Your task to perform on an android device: Search for bose soundlink mini on bestbuy, select the first entry, add it to the cart, then select checkout. Image 0: 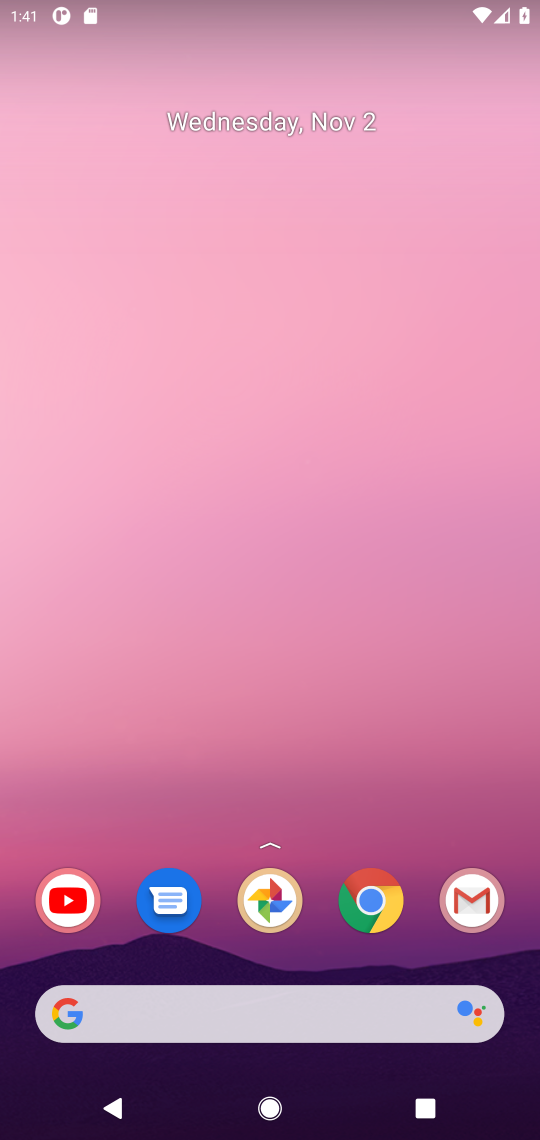
Step 0: click (362, 898)
Your task to perform on an android device: Search for bose soundlink mini on bestbuy, select the first entry, add it to the cart, then select checkout. Image 1: 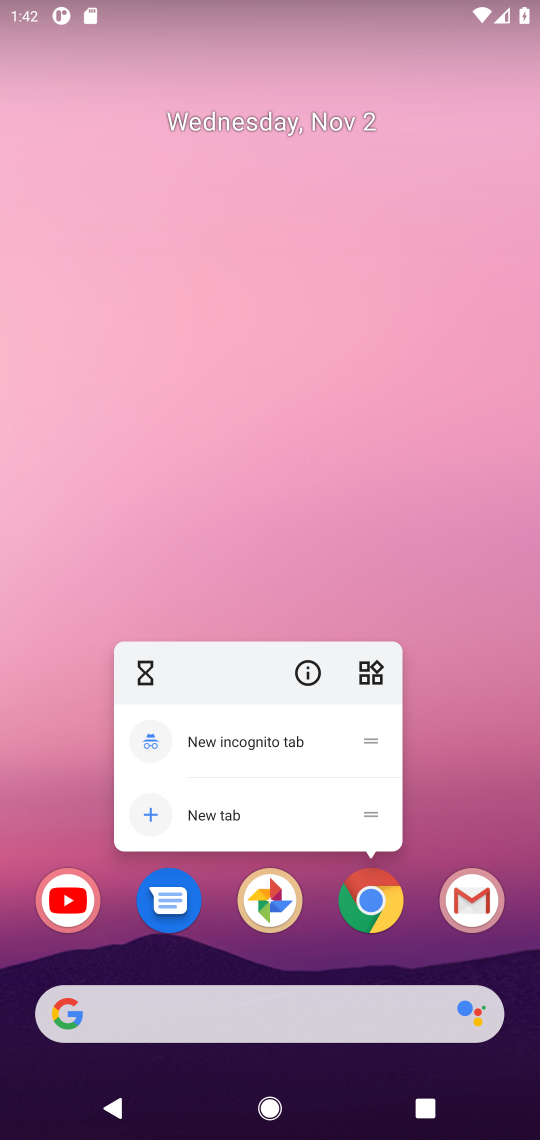
Step 1: click (361, 891)
Your task to perform on an android device: Search for bose soundlink mini on bestbuy, select the first entry, add it to the cart, then select checkout. Image 2: 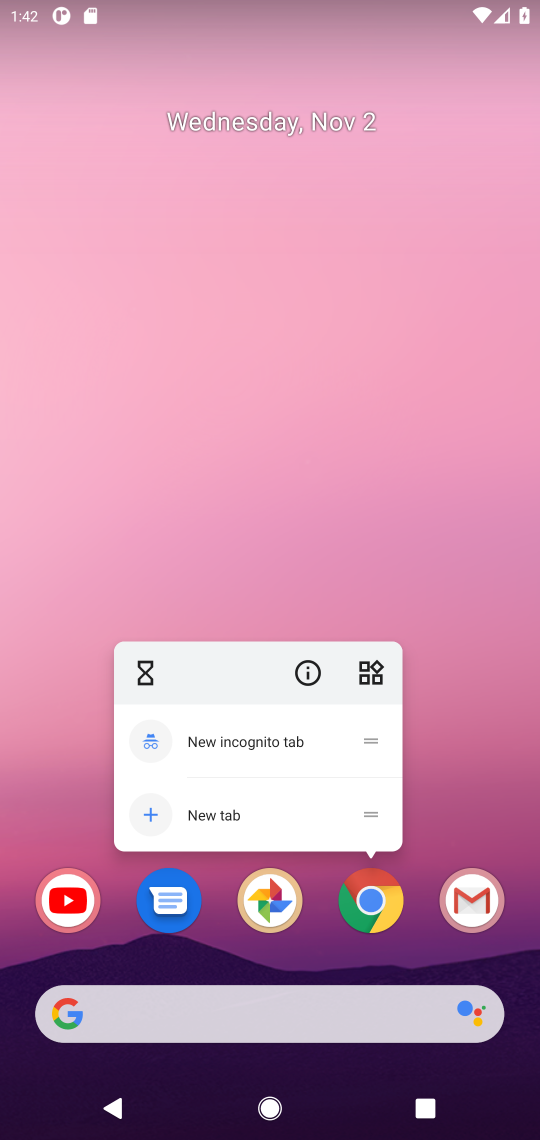
Step 2: click (361, 891)
Your task to perform on an android device: Search for bose soundlink mini on bestbuy, select the first entry, add it to the cart, then select checkout. Image 3: 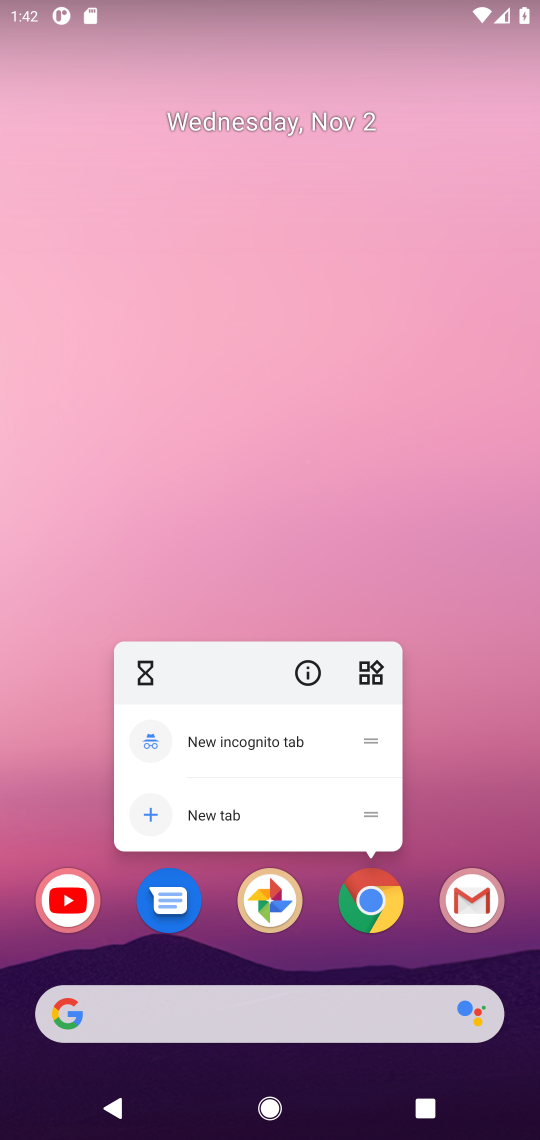
Step 3: press back button
Your task to perform on an android device: Search for bose soundlink mini on bestbuy, select the first entry, add it to the cart, then select checkout. Image 4: 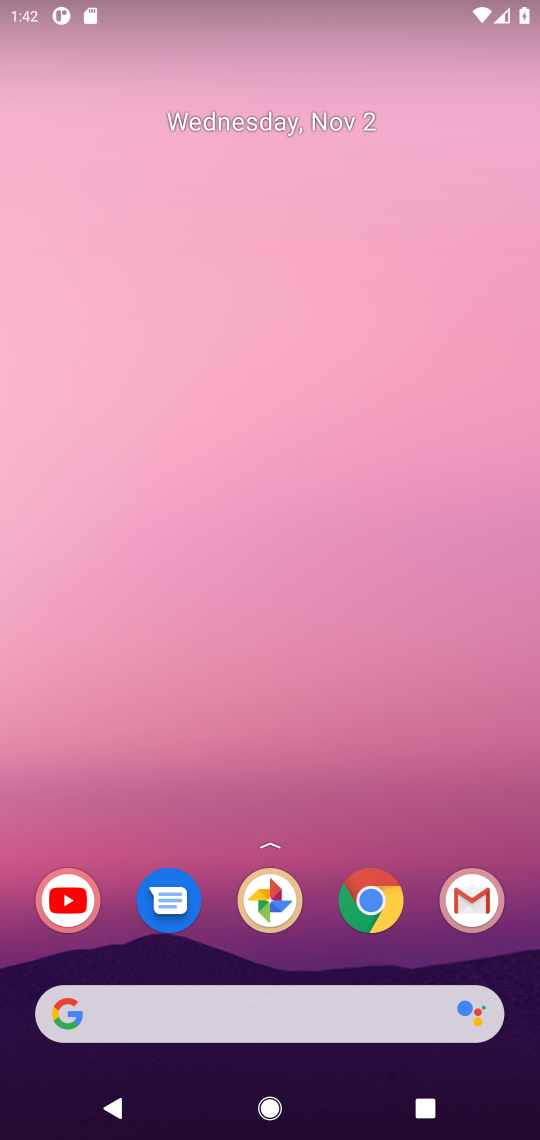
Step 4: press back button
Your task to perform on an android device: Search for bose soundlink mini on bestbuy, select the first entry, add it to the cart, then select checkout. Image 5: 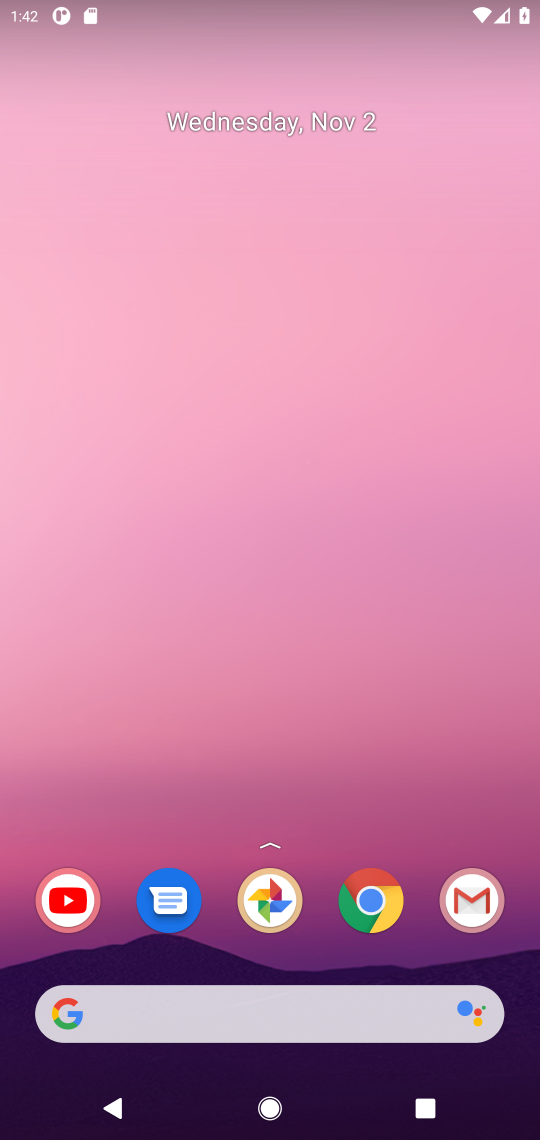
Step 5: press back button
Your task to perform on an android device: Search for bose soundlink mini on bestbuy, select the first entry, add it to the cart, then select checkout. Image 6: 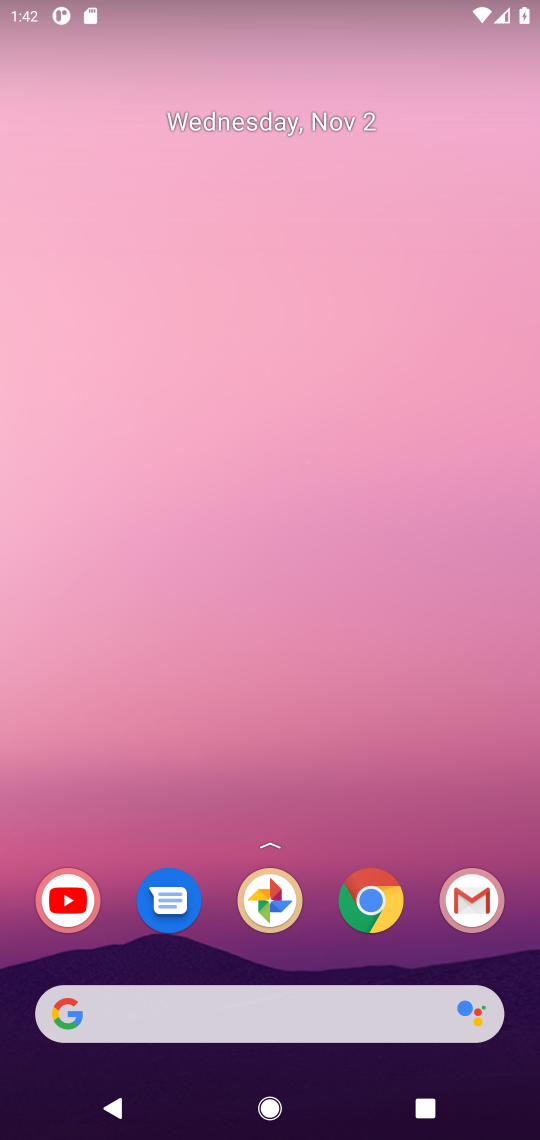
Step 6: press home button
Your task to perform on an android device: Search for bose soundlink mini on bestbuy, select the first entry, add it to the cart, then select checkout. Image 7: 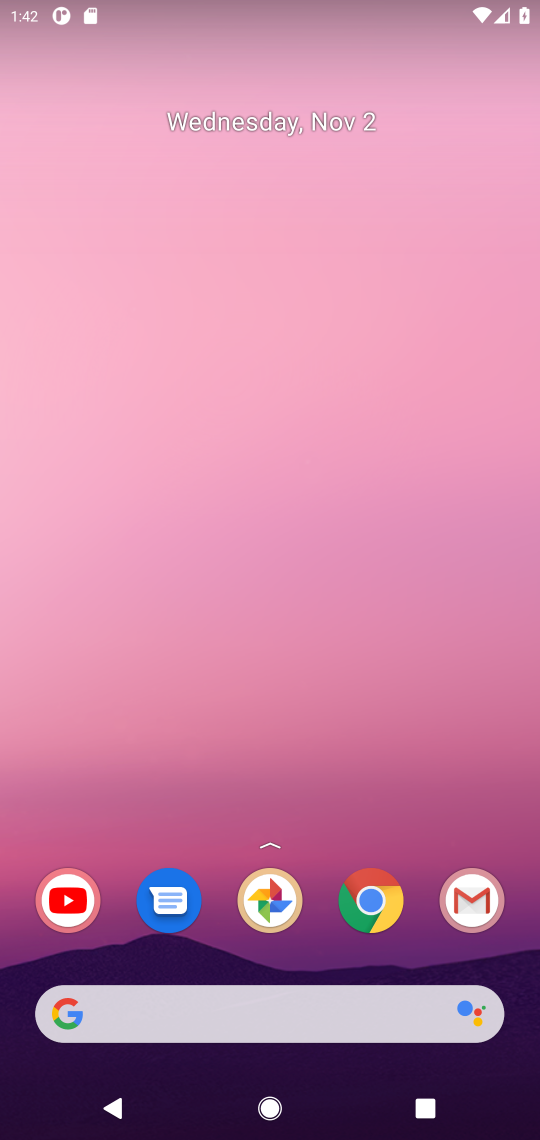
Step 7: click (375, 884)
Your task to perform on an android device: Search for bose soundlink mini on bestbuy, select the first entry, add it to the cart, then select checkout. Image 8: 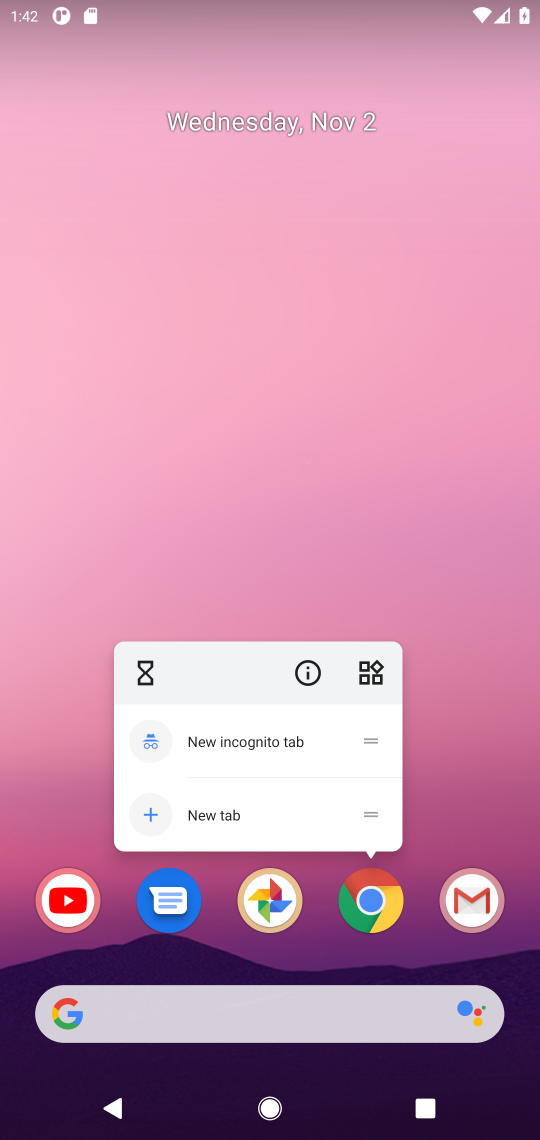
Step 8: click (366, 921)
Your task to perform on an android device: Search for bose soundlink mini on bestbuy, select the first entry, add it to the cart, then select checkout. Image 9: 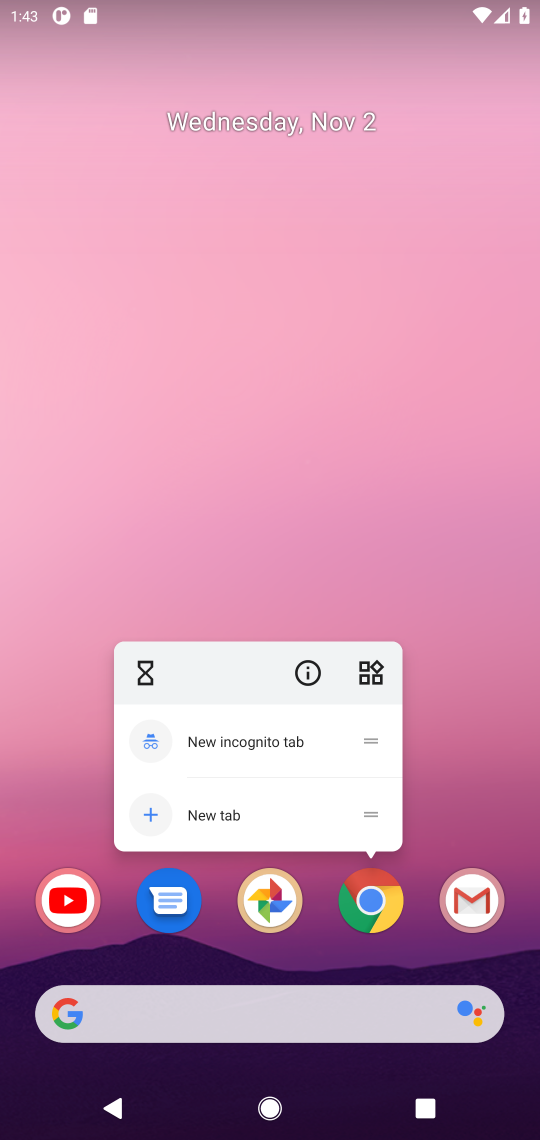
Step 9: click (350, 912)
Your task to perform on an android device: Search for bose soundlink mini on bestbuy, select the first entry, add it to the cart, then select checkout. Image 10: 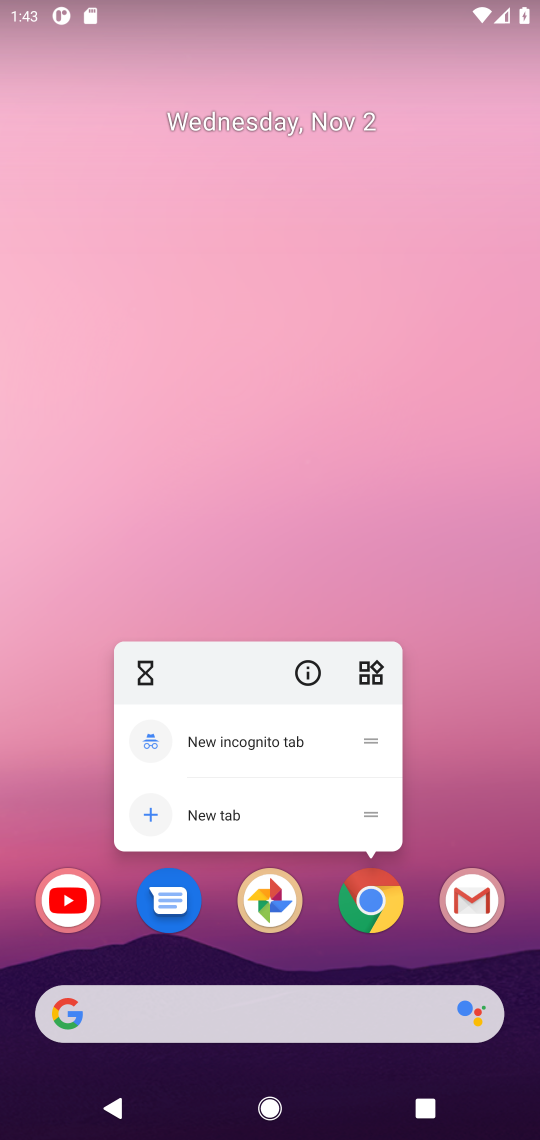
Step 10: click (356, 901)
Your task to perform on an android device: Search for bose soundlink mini on bestbuy, select the first entry, add it to the cart, then select checkout. Image 11: 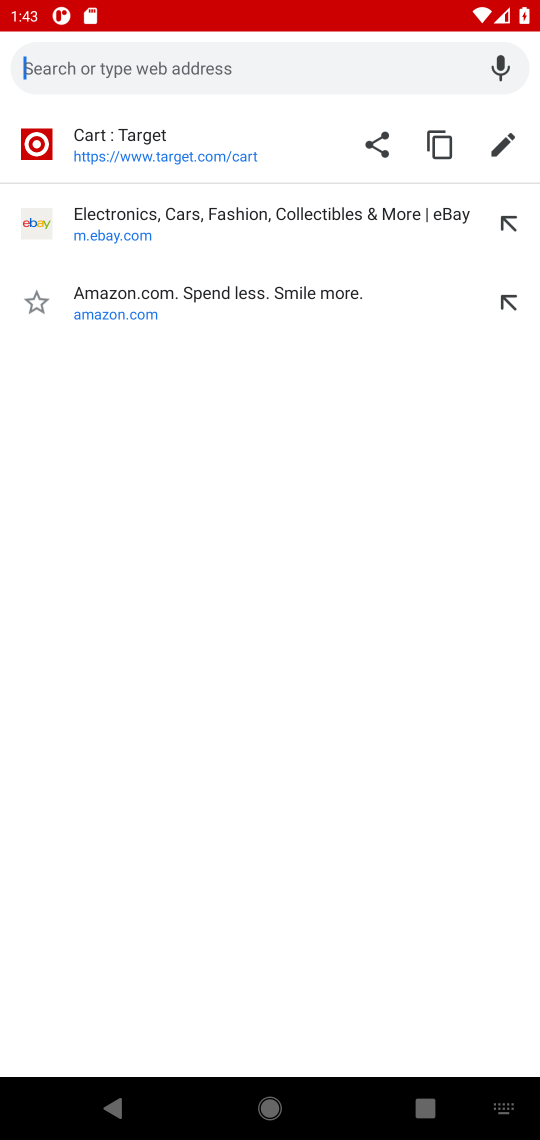
Step 11: type "bestbuy"
Your task to perform on an android device: Search for bose soundlink mini on bestbuy, select the first entry, add it to the cart, then select checkout. Image 12: 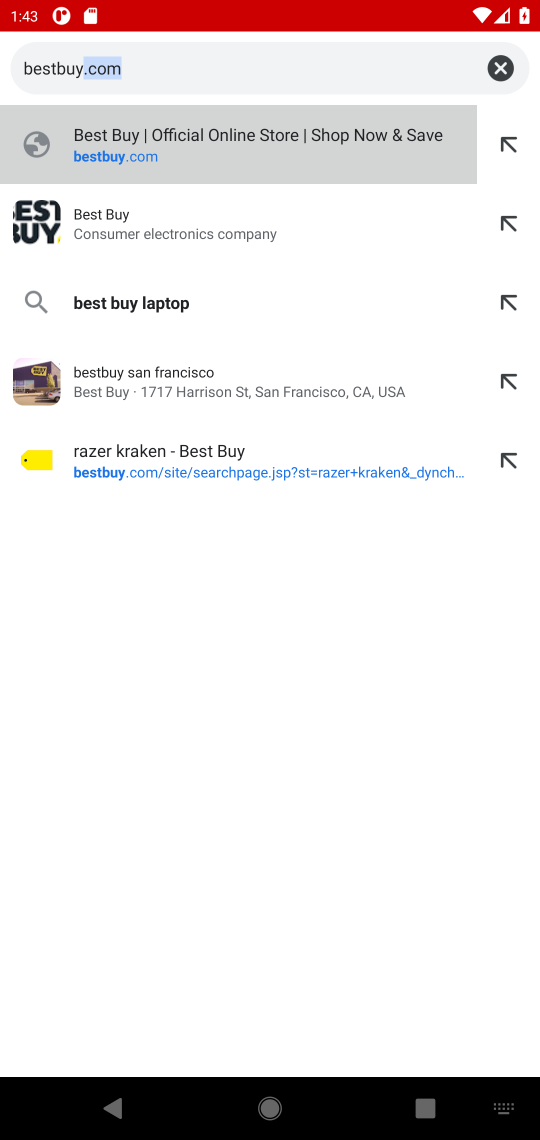
Step 12: click (114, 219)
Your task to perform on an android device: Search for bose soundlink mini on bestbuy, select the first entry, add it to the cart, then select checkout. Image 13: 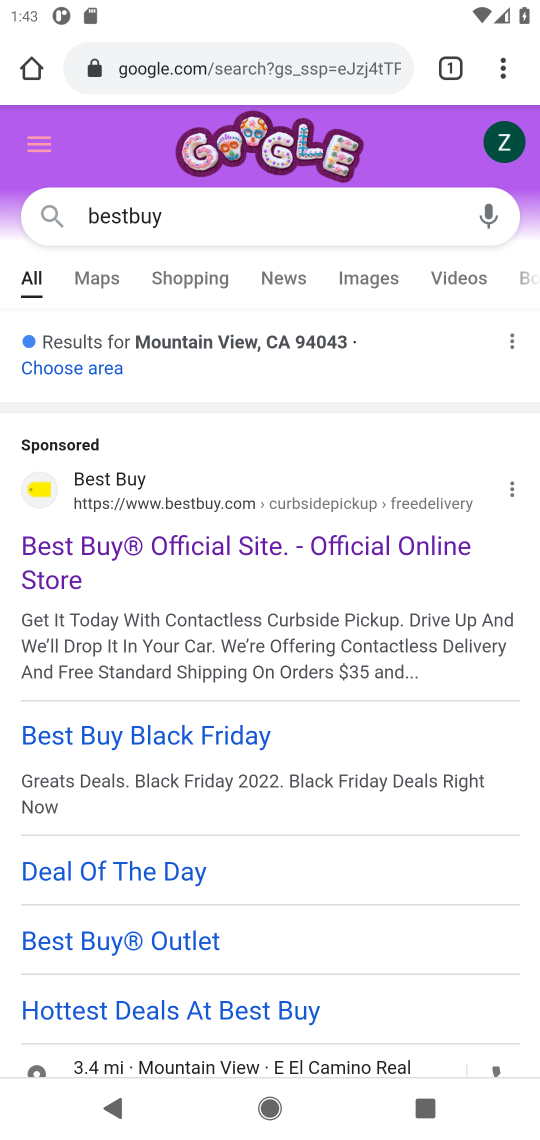
Step 13: click (122, 472)
Your task to perform on an android device: Search for bose soundlink mini on bestbuy, select the first entry, add it to the cart, then select checkout. Image 14: 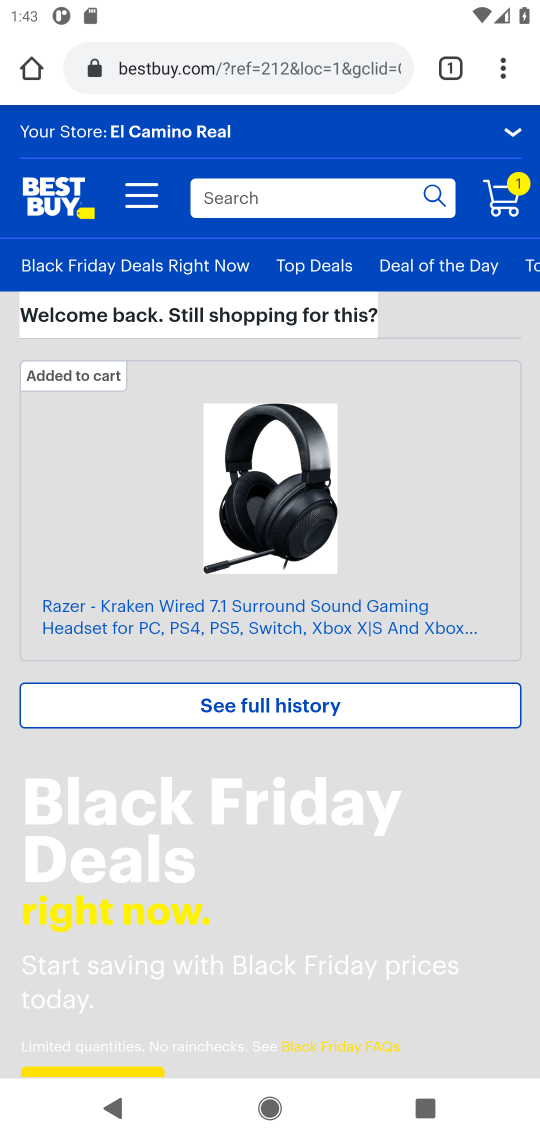
Step 14: drag from (235, 823) to (342, 166)
Your task to perform on an android device: Search for bose soundlink mini on bestbuy, select the first entry, add it to the cart, then select checkout. Image 15: 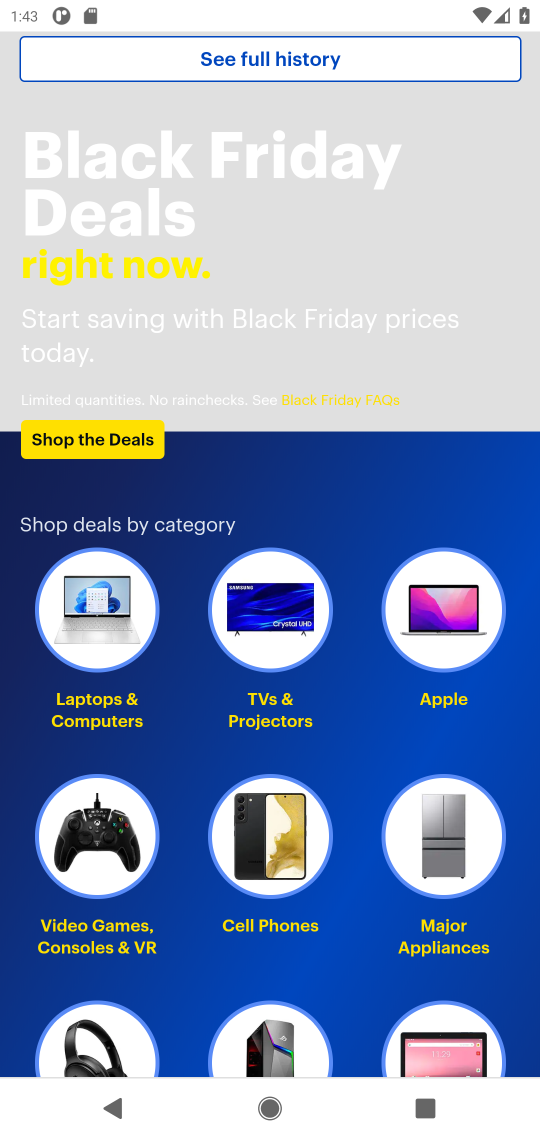
Step 15: drag from (363, 291) to (0, 511)
Your task to perform on an android device: Search for bose soundlink mini on bestbuy, select the first entry, add it to the cart, then select checkout. Image 16: 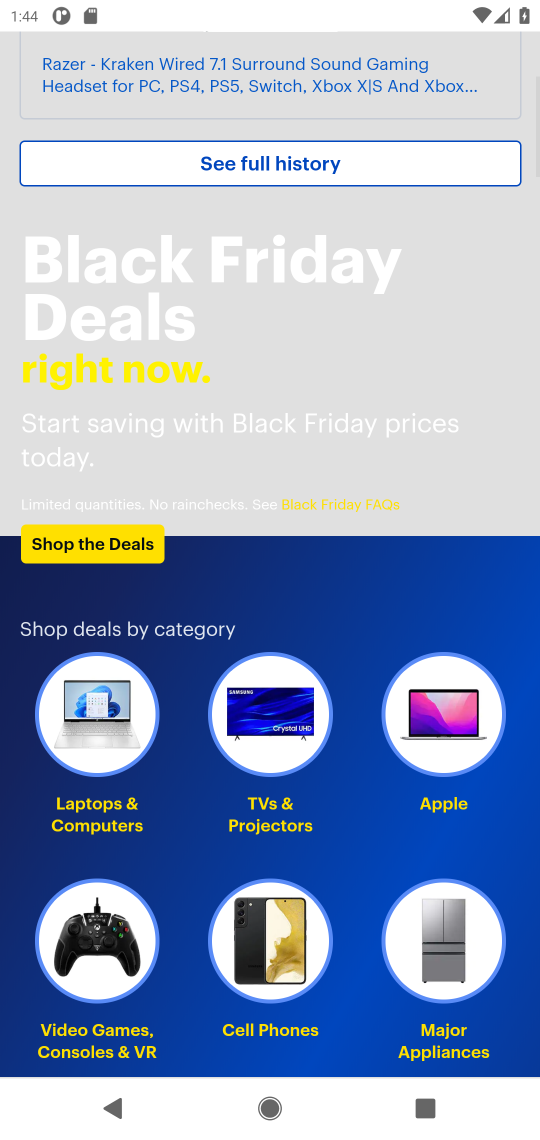
Step 16: click (245, 198)
Your task to perform on an android device: Search for bose soundlink mini on bestbuy, select the first entry, add it to the cart, then select checkout. Image 17: 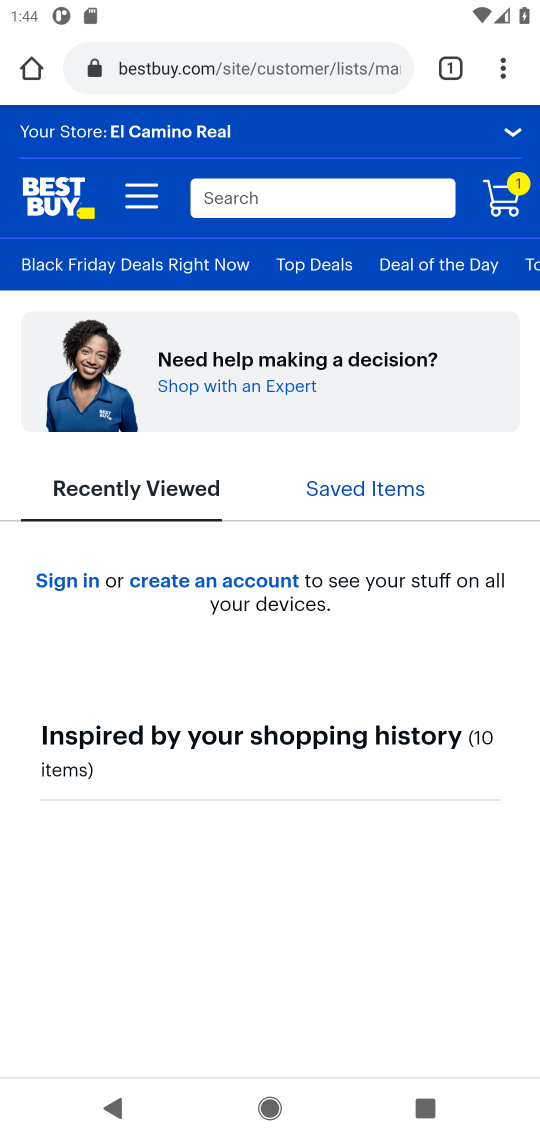
Step 17: click (354, 198)
Your task to perform on an android device: Search for bose soundlink mini on bestbuy, select the first entry, add it to the cart, then select checkout. Image 18: 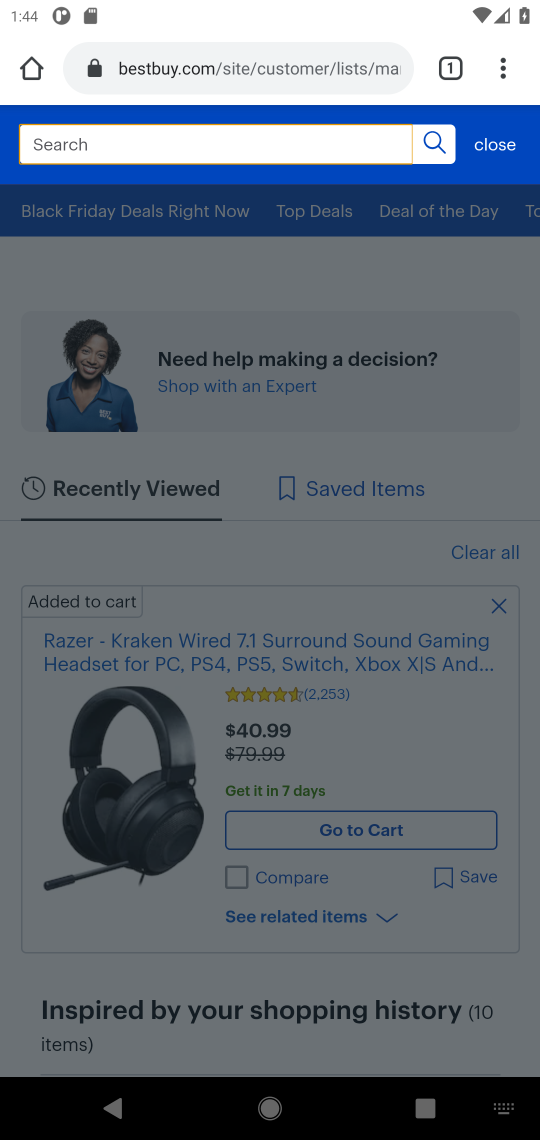
Step 18: type "soundlink mini"
Your task to perform on an android device: Search for bose soundlink mini on bestbuy, select the first entry, add it to the cart, then select checkout. Image 19: 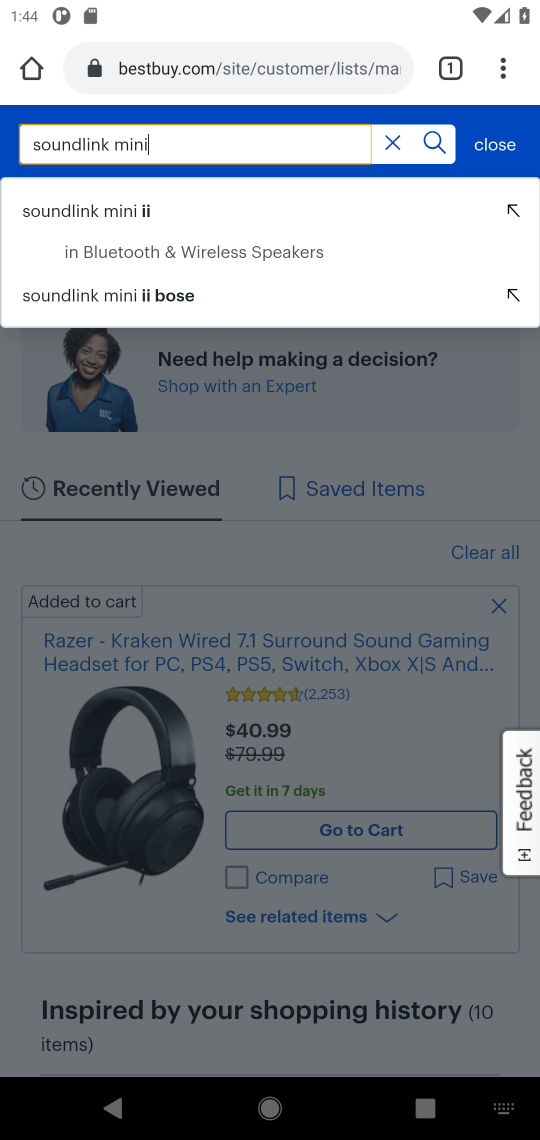
Step 19: click (115, 218)
Your task to perform on an android device: Search for bose soundlink mini on bestbuy, select the first entry, add it to the cart, then select checkout. Image 20: 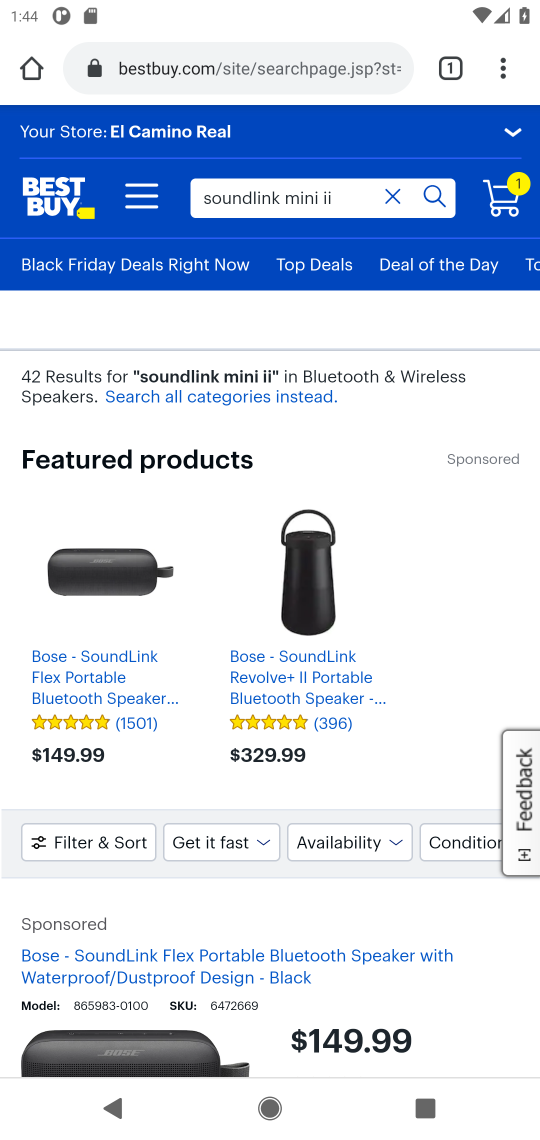
Step 20: drag from (151, 863) to (177, 454)
Your task to perform on an android device: Search for bose soundlink mini on bestbuy, select the first entry, add it to the cart, then select checkout. Image 21: 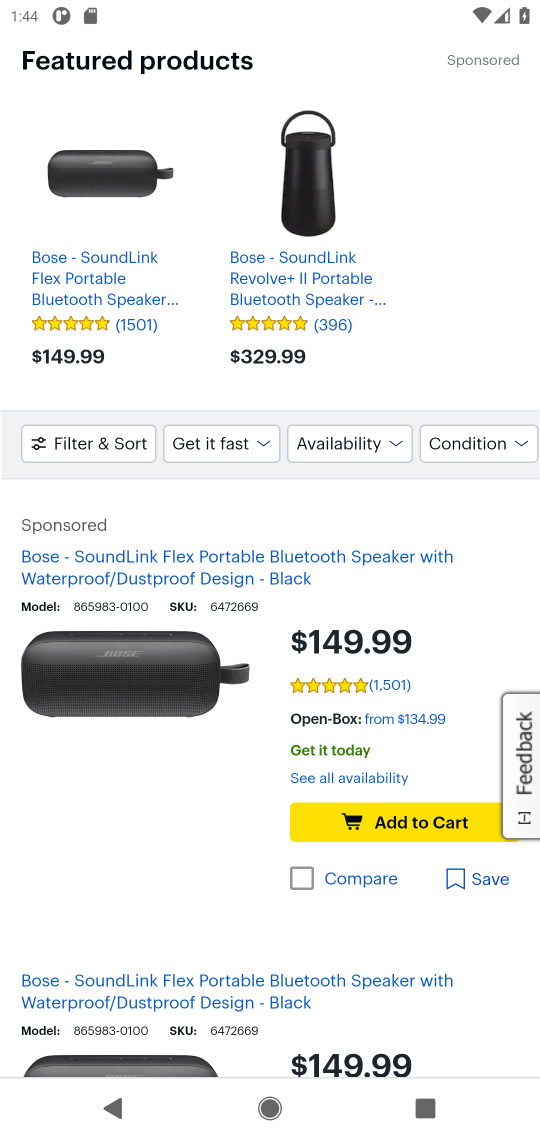
Step 21: click (155, 578)
Your task to perform on an android device: Search for bose soundlink mini on bestbuy, select the first entry, add it to the cart, then select checkout. Image 22: 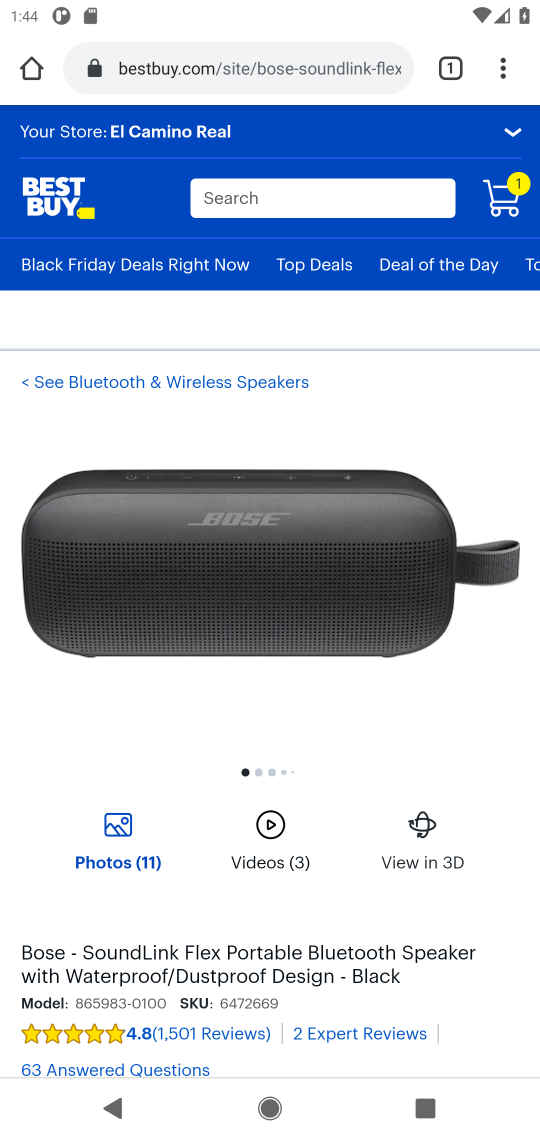
Step 22: drag from (247, 591) to (311, 345)
Your task to perform on an android device: Search for bose soundlink mini on bestbuy, select the first entry, add it to the cart, then select checkout. Image 23: 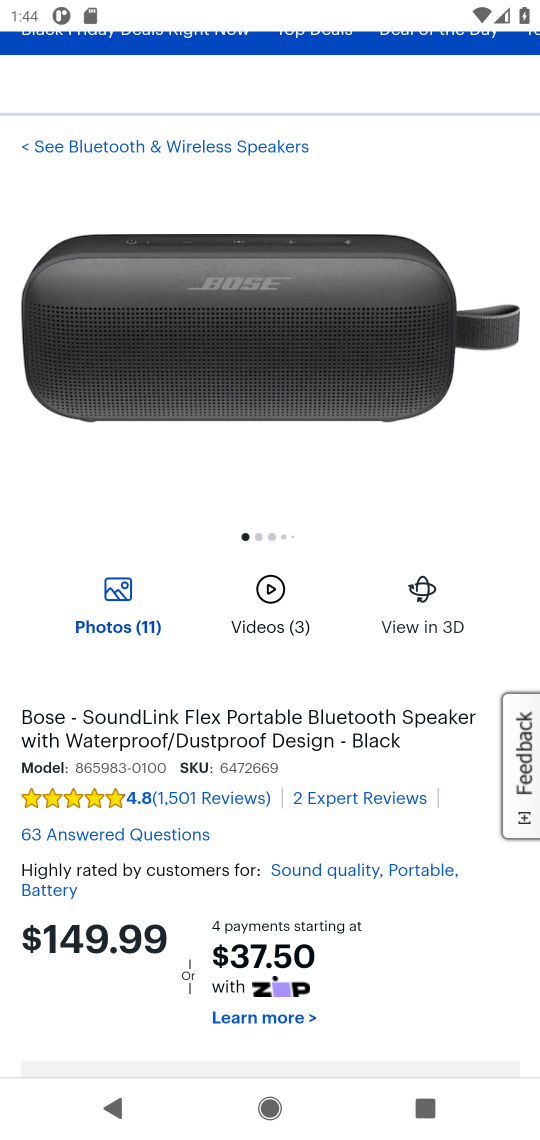
Step 23: drag from (147, 606) to (170, 440)
Your task to perform on an android device: Search for bose soundlink mini on bestbuy, select the first entry, add it to the cart, then select checkout. Image 24: 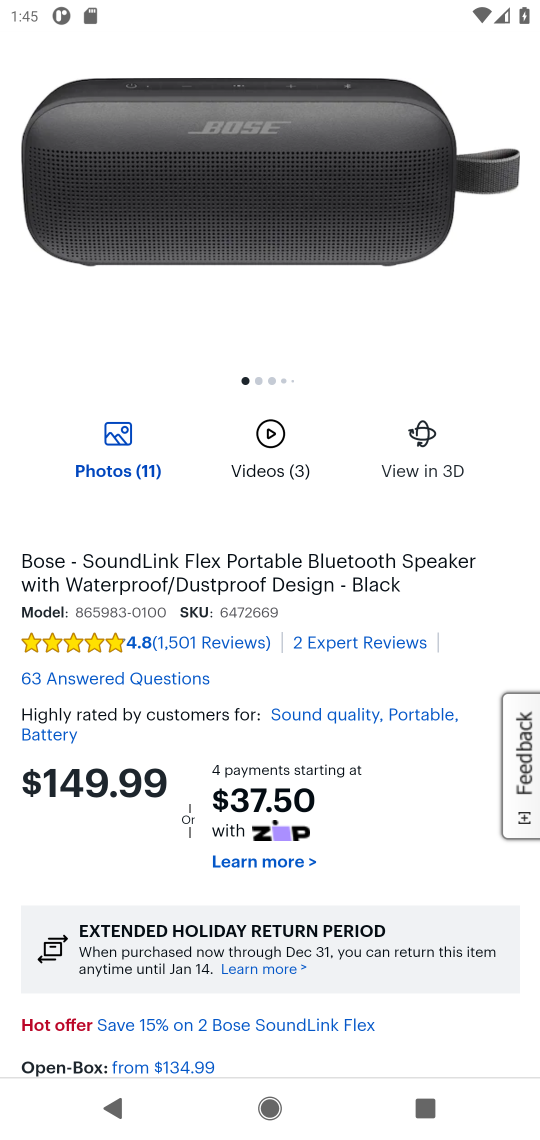
Step 24: drag from (172, 819) to (252, 389)
Your task to perform on an android device: Search for bose soundlink mini on bestbuy, select the first entry, add it to the cart, then select checkout. Image 25: 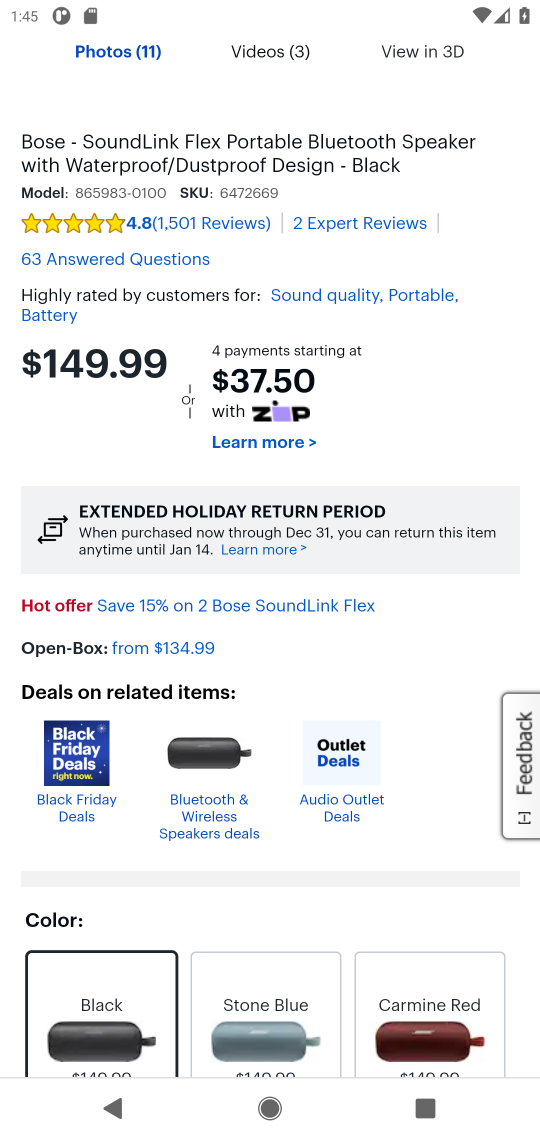
Step 25: drag from (171, 737) to (203, 463)
Your task to perform on an android device: Search for bose soundlink mini on bestbuy, select the first entry, add it to the cart, then select checkout. Image 26: 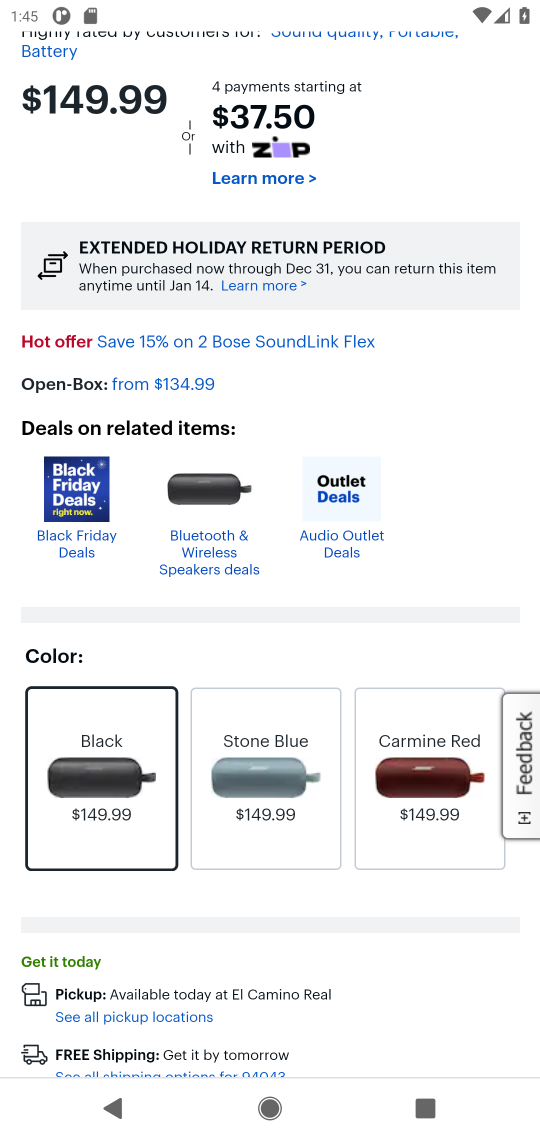
Step 26: drag from (167, 880) to (190, 429)
Your task to perform on an android device: Search for bose soundlink mini on bestbuy, select the first entry, add it to the cart, then select checkout. Image 27: 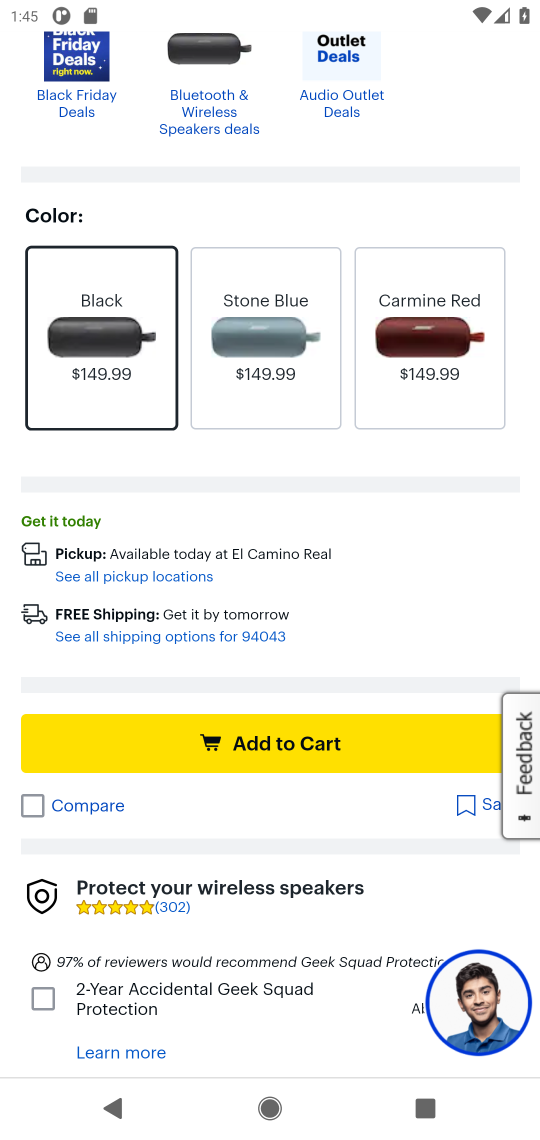
Step 27: click (270, 737)
Your task to perform on an android device: Search for bose soundlink mini on bestbuy, select the first entry, add it to the cart, then select checkout. Image 28: 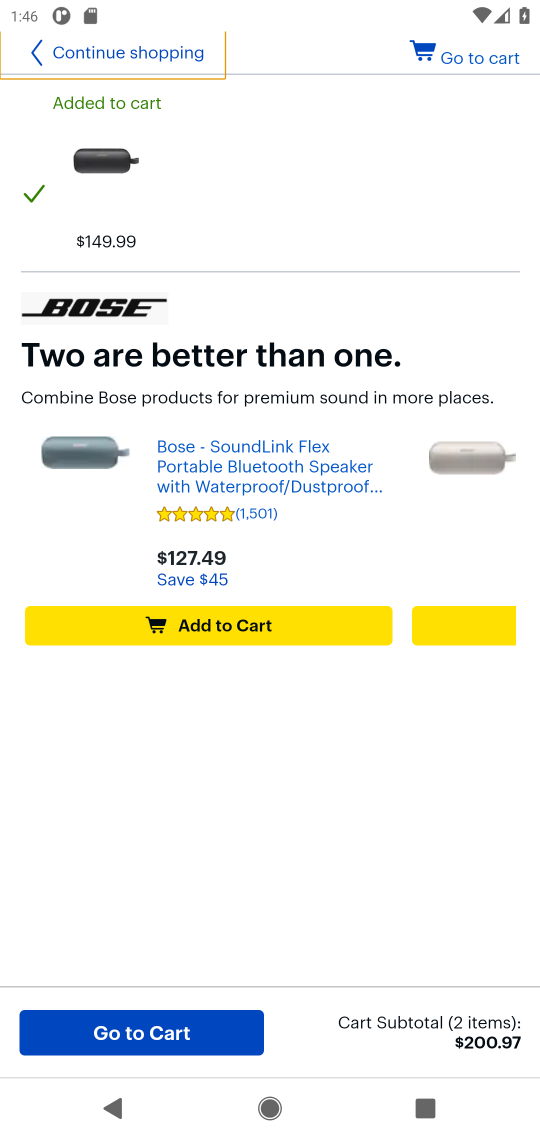
Step 28: click (160, 1029)
Your task to perform on an android device: Search for bose soundlink mini on bestbuy, select the first entry, add it to the cart, then select checkout. Image 29: 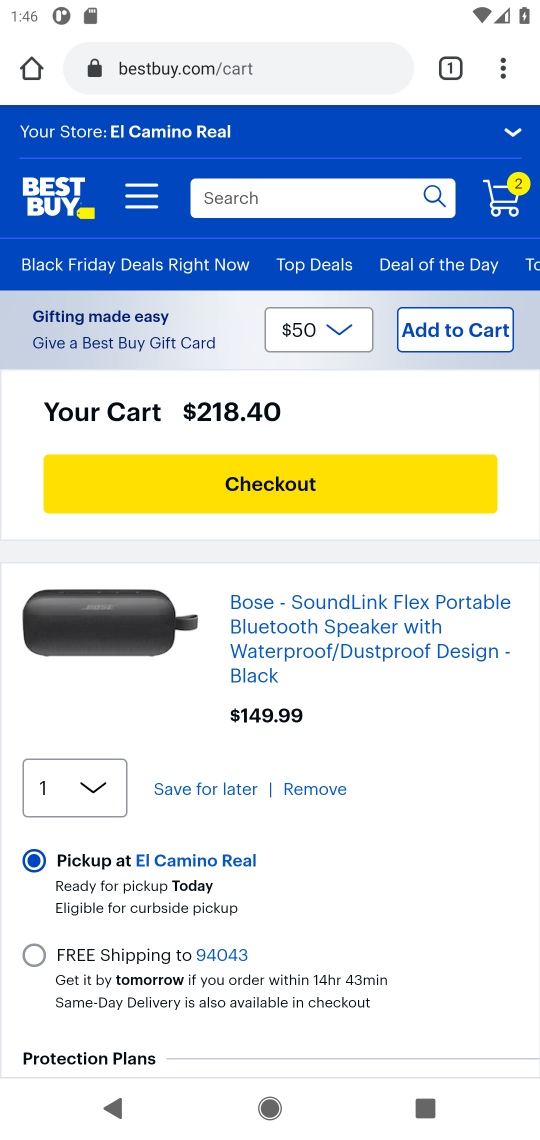
Step 29: click (286, 480)
Your task to perform on an android device: Search for bose soundlink mini on bestbuy, select the first entry, add it to the cart, then select checkout. Image 30: 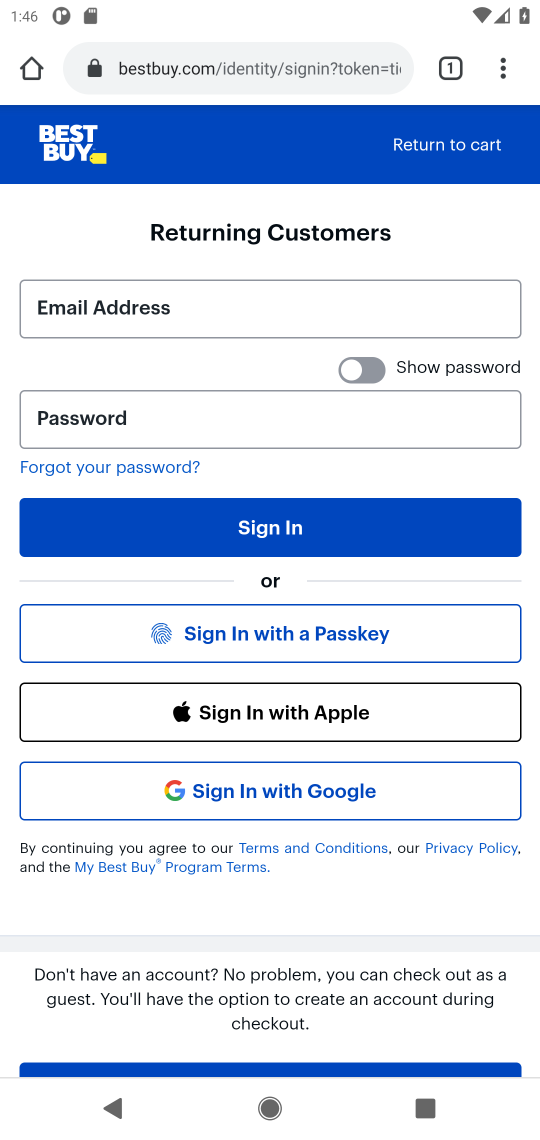
Step 30: task complete